Your task to perform on an android device: add a contact in the contacts app Image 0: 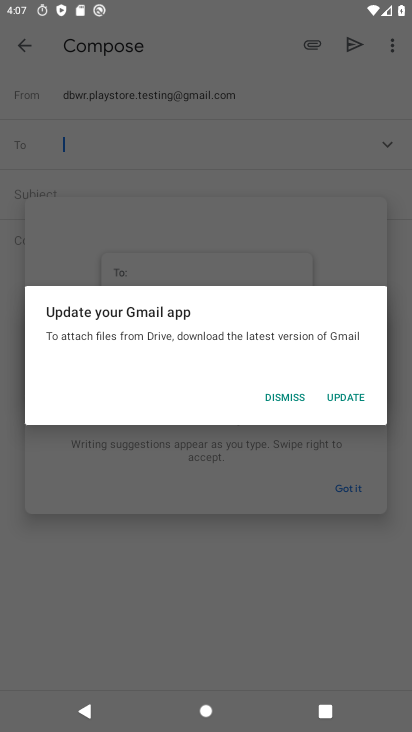
Step 0: press back button
Your task to perform on an android device: add a contact in the contacts app Image 1: 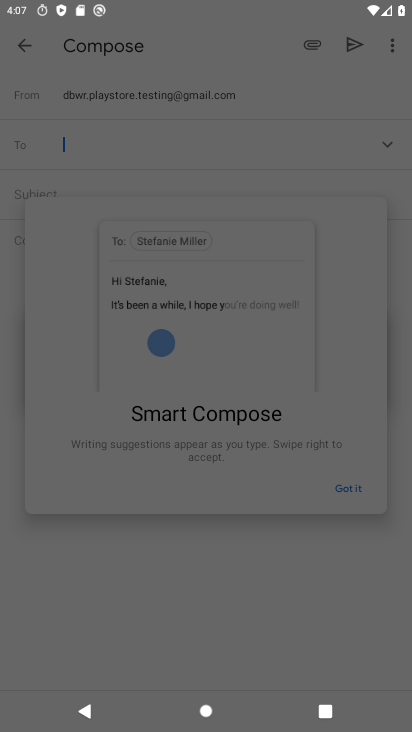
Step 1: task complete